Your task to perform on an android device: turn on data saver in the chrome app Image 0: 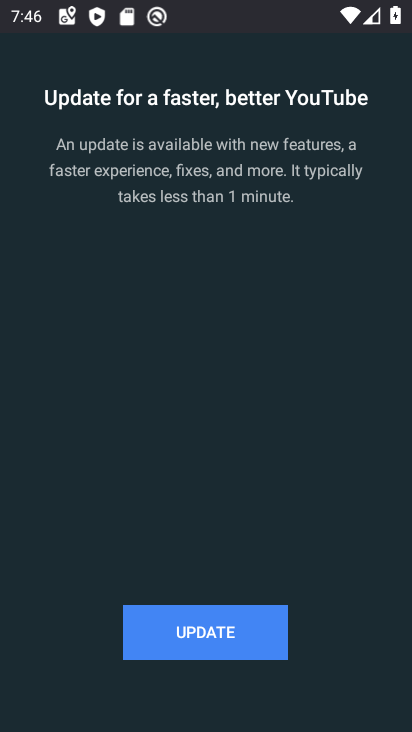
Step 0: press home button
Your task to perform on an android device: turn on data saver in the chrome app Image 1: 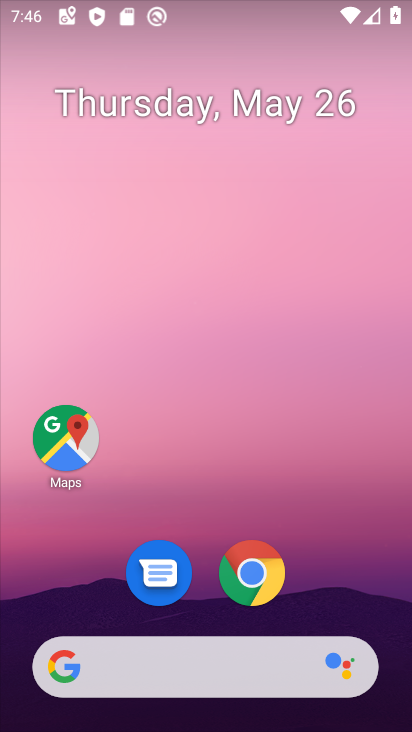
Step 1: click (257, 575)
Your task to perform on an android device: turn on data saver in the chrome app Image 2: 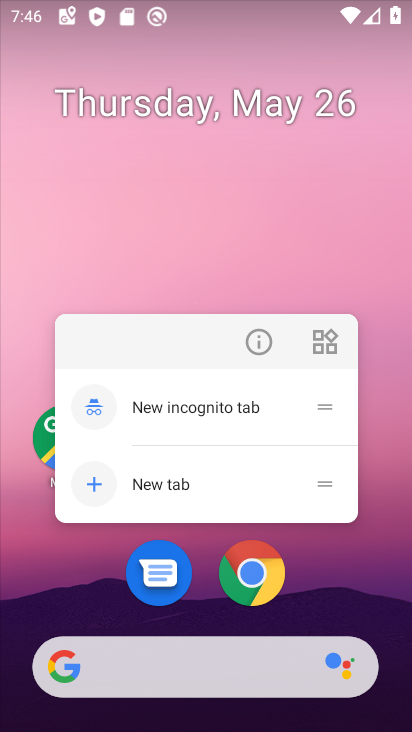
Step 2: click (257, 575)
Your task to perform on an android device: turn on data saver in the chrome app Image 3: 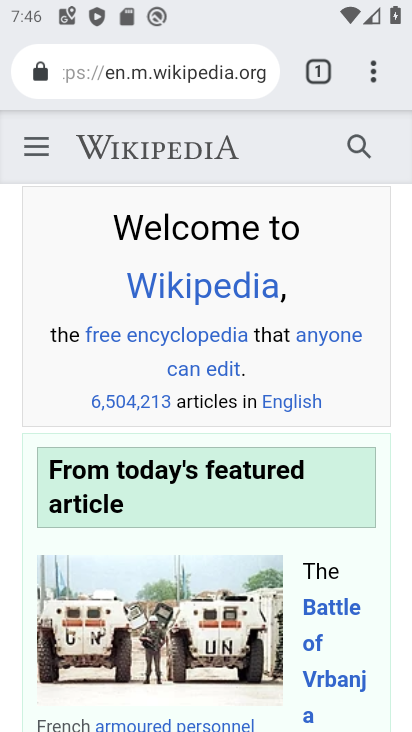
Step 3: drag from (371, 63) to (120, 583)
Your task to perform on an android device: turn on data saver in the chrome app Image 4: 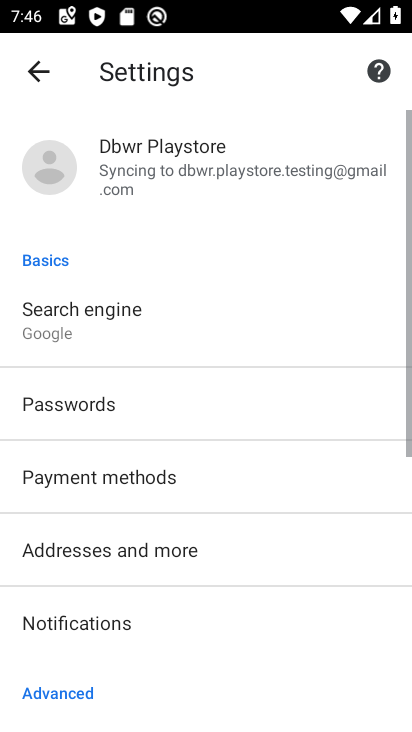
Step 4: drag from (131, 561) to (285, 101)
Your task to perform on an android device: turn on data saver in the chrome app Image 5: 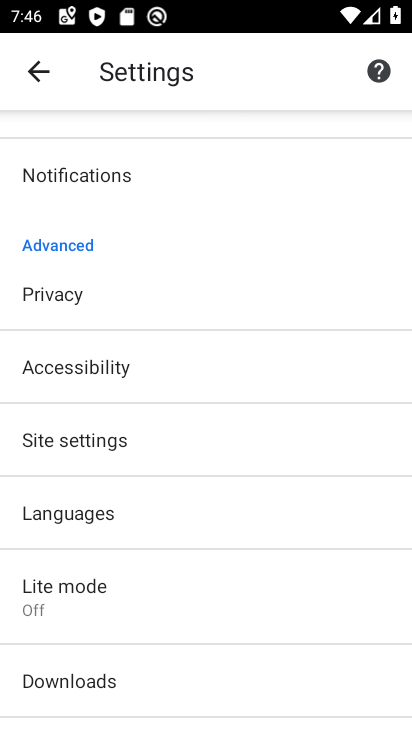
Step 5: click (143, 614)
Your task to perform on an android device: turn on data saver in the chrome app Image 6: 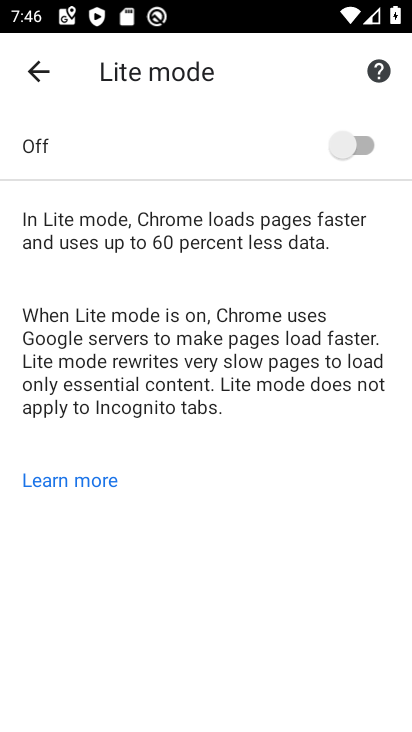
Step 6: click (369, 126)
Your task to perform on an android device: turn on data saver in the chrome app Image 7: 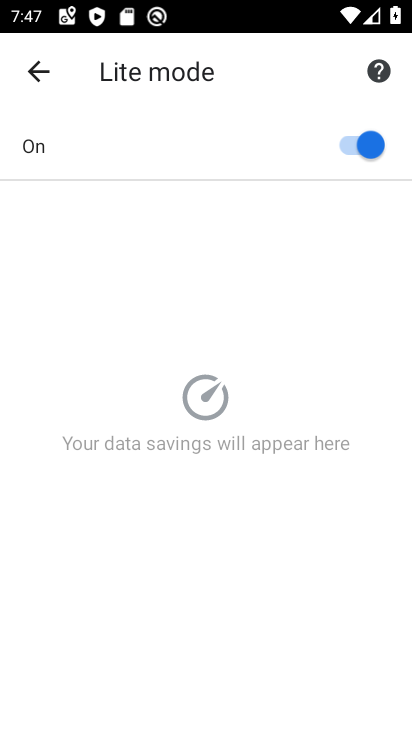
Step 7: task complete